Your task to perform on an android device: open chrome and create a bookmark for the current page Image 0: 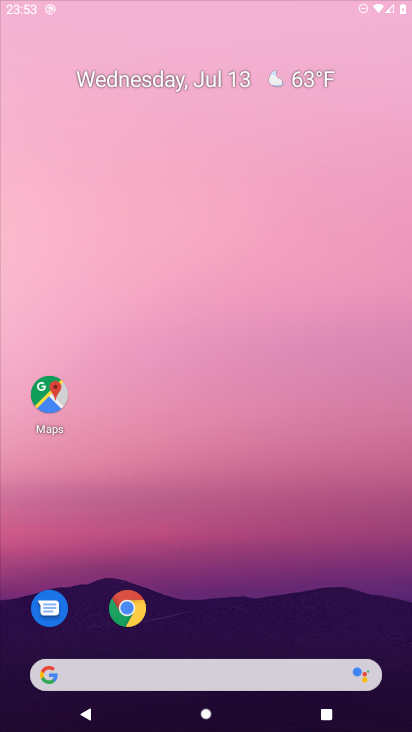
Step 0: press home button
Your task to perform on an android device: open chrome and create a bookmark for the current page Image 1: 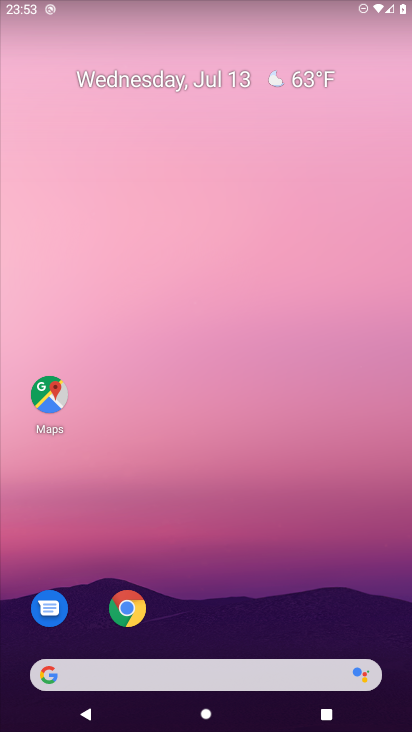
Step 1: drag from (244, 669) to (108, 2)
Your task to perform on an android device: open chrome and create a bookmark for the current page Image 2: 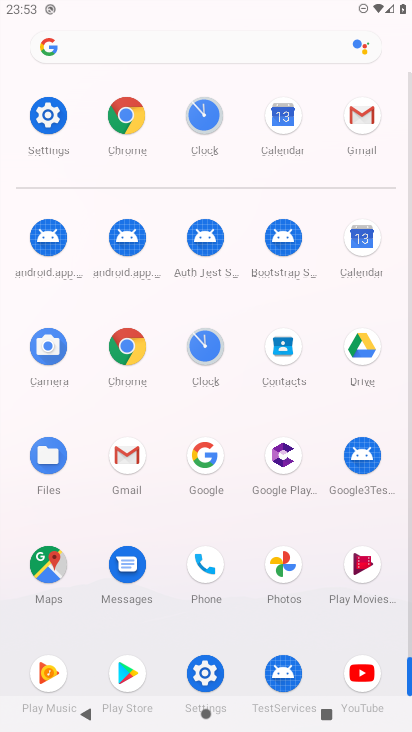
Step 2: click (132, 111)
Your task to perform on an android device: open chrome and create a bookmark for the current page Image 3: 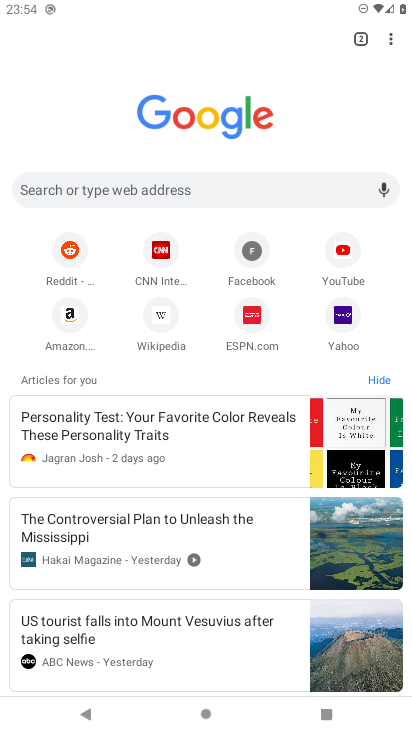
Step 3: task complete